Your task to perform on an android device: refresh tabs in the chrome app Image 0: 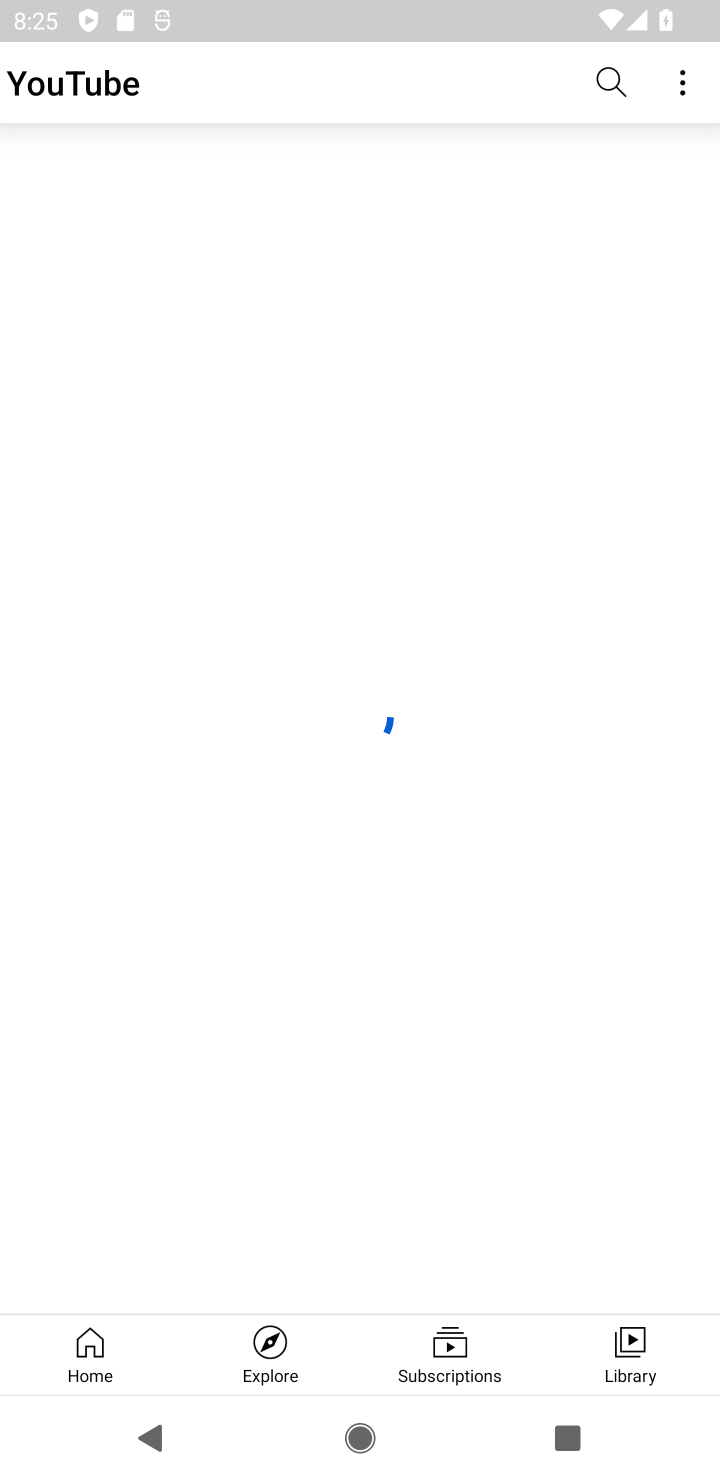
Step 0: press home button
Your task to perform on an android device: refresh tabs in the chrome app Image 1: 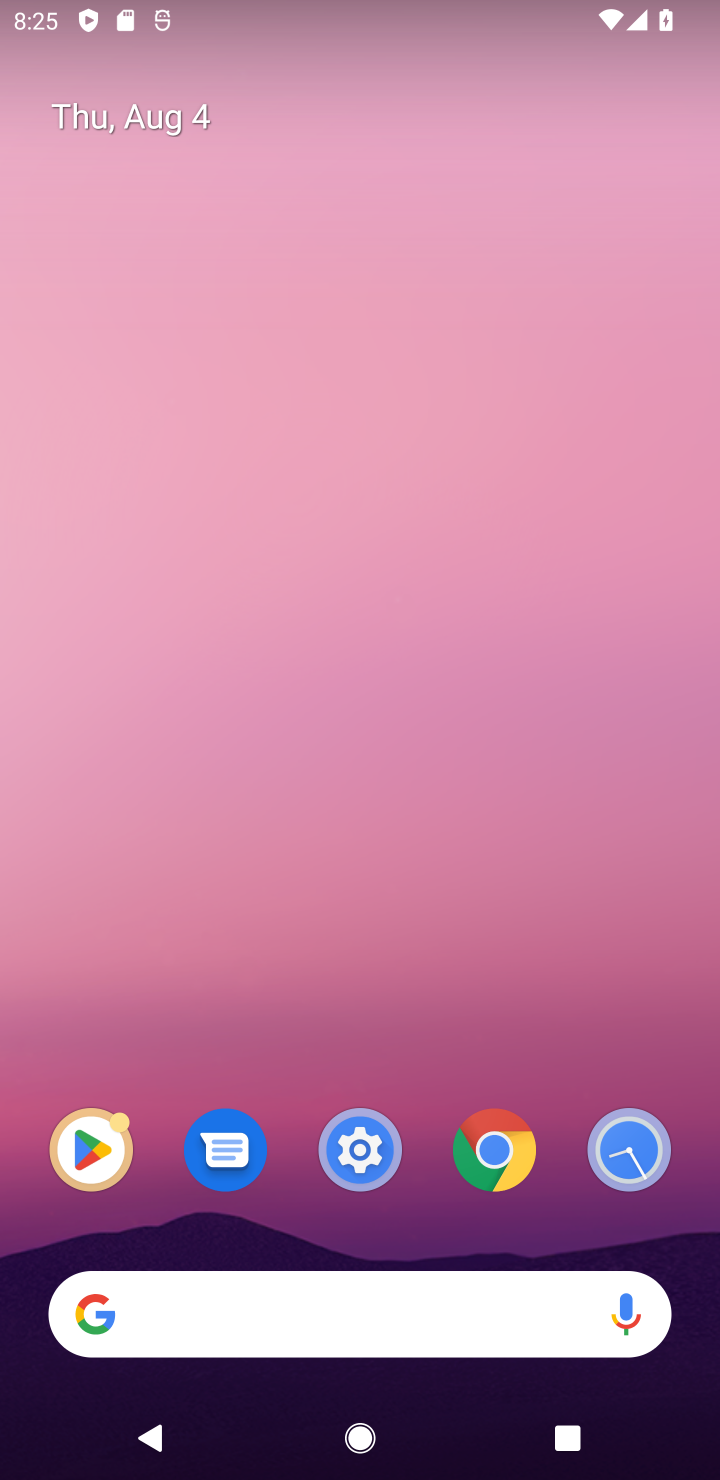
Step 1: drag from (430, 1251) to (448, 60)
Your task to perform on an android device: refresh tabs in the chrome app Image 2: 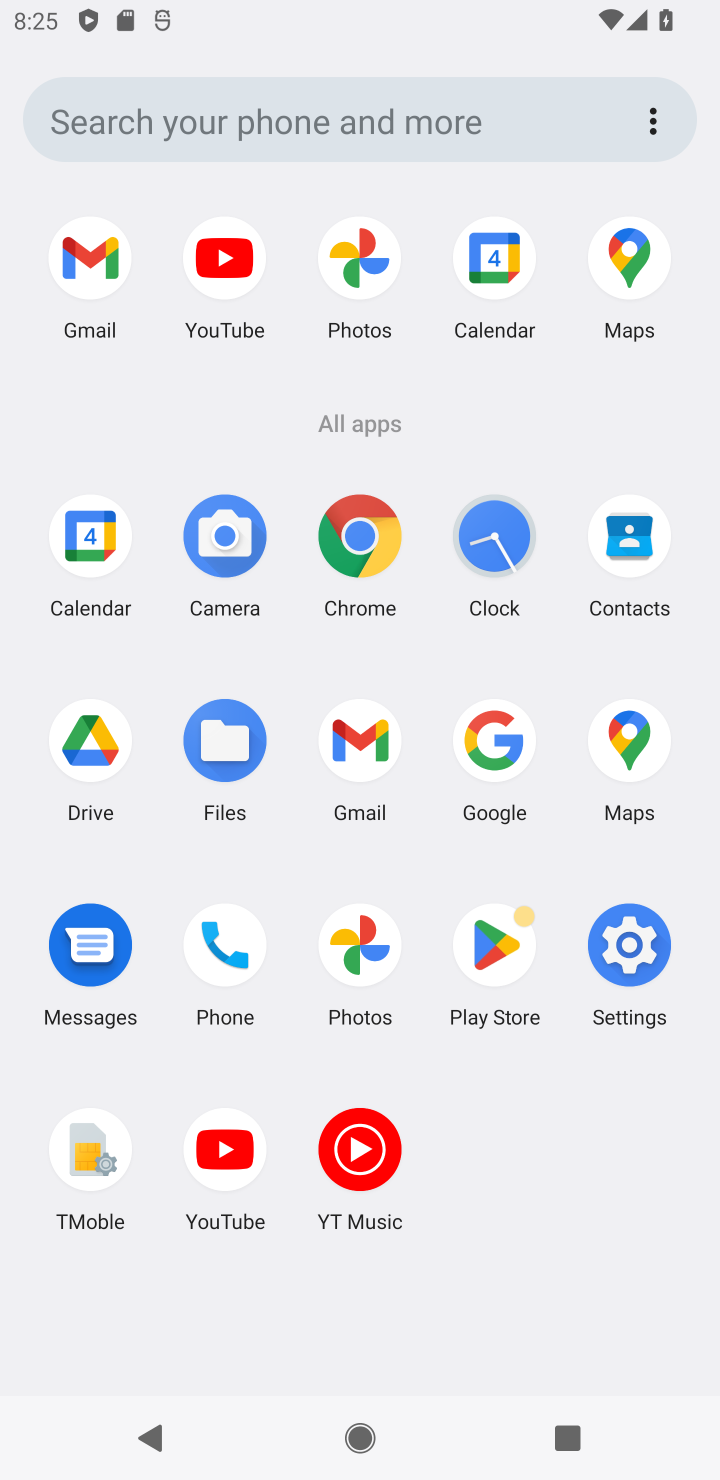
Step 2: click (334, 552)
Your task to perform on an android device: refresh tabs in the chrome app Image 3: 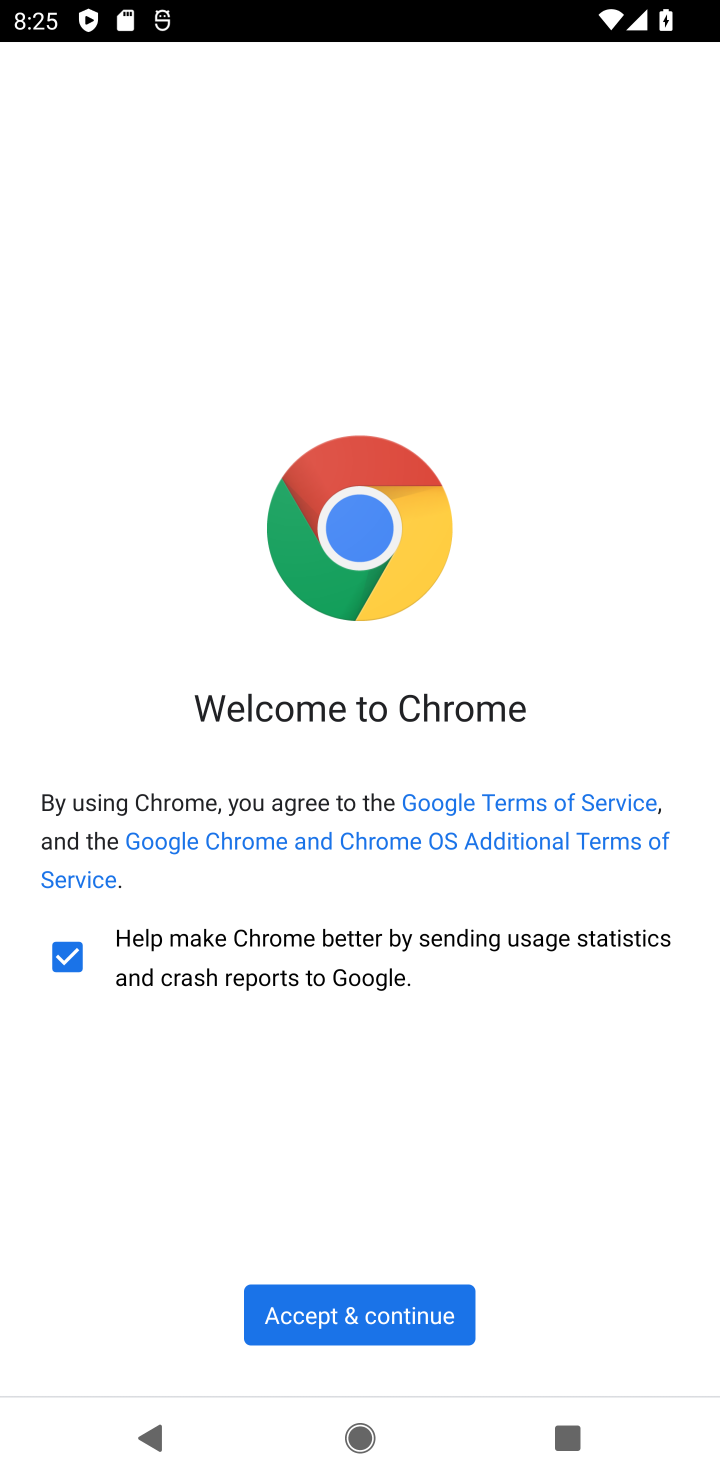
Step 3: click (399, 1297)
Your task to perform on an android device: refresh tabs in the chrome app Image 4: 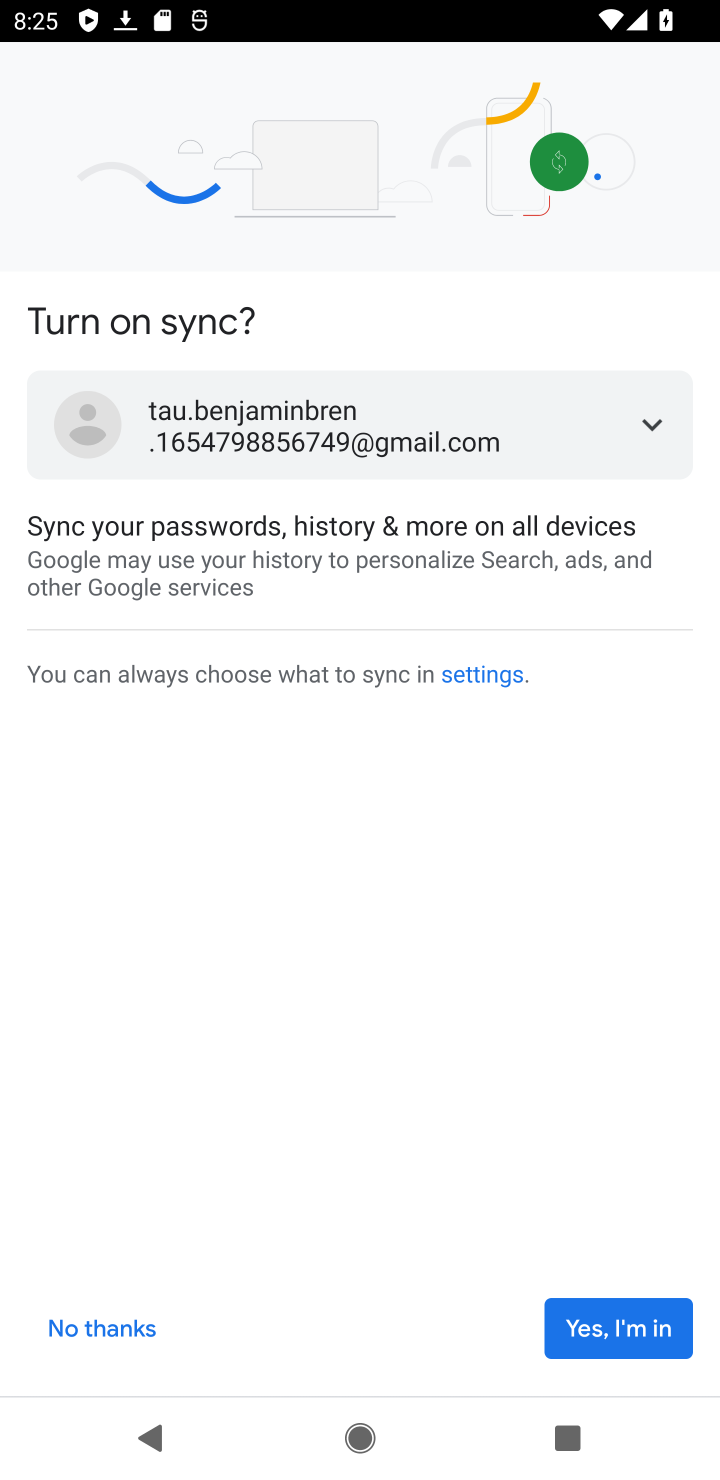
Step 4: click (604, 1339)
Your task to perform on an android device: refresh tabs in the chrome app Image 5: 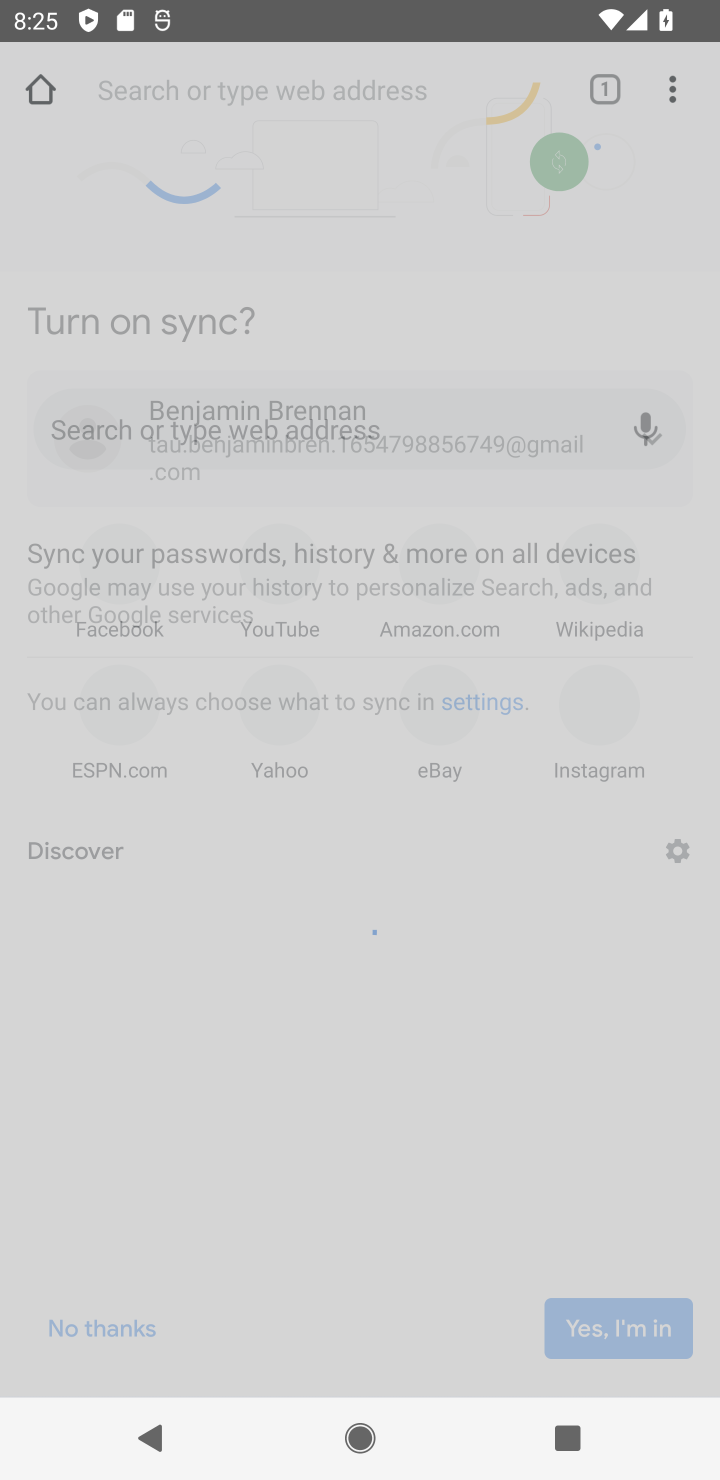
Step 5: drag from (678, 1313) to (639, 1097)
Your task to perform on an android device: refresh tabs in the chrome app Image 6: 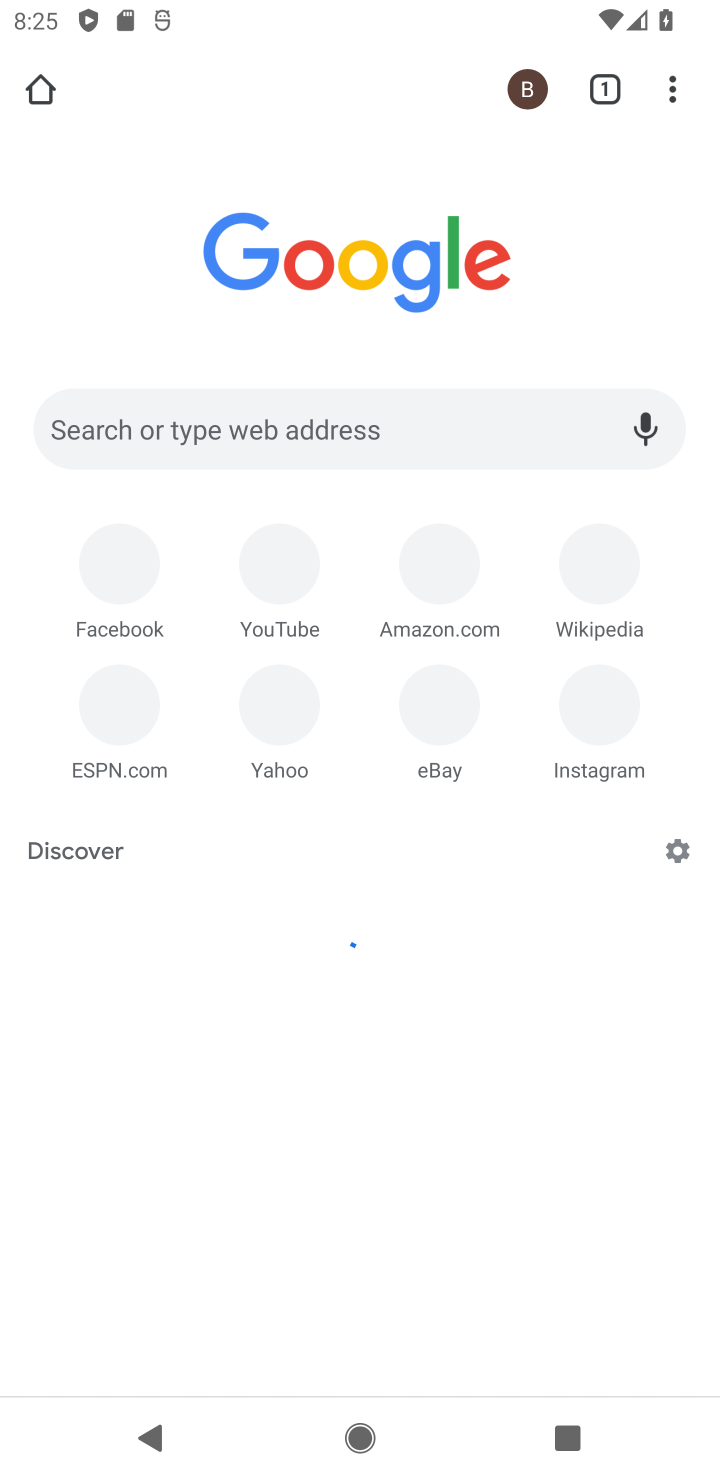
Step 6: click (679, 103)
Your task to perform on an android device: refresh tabs in the chrome app Image 7: 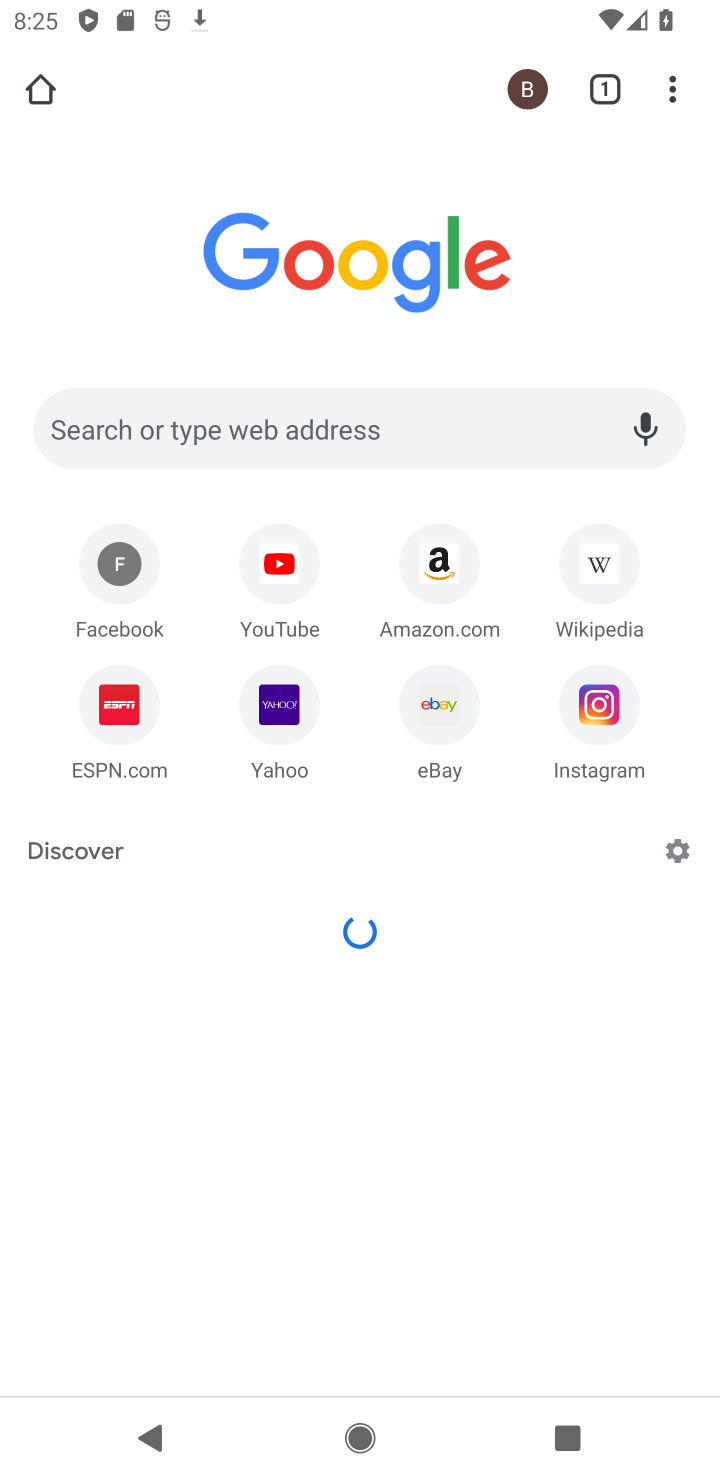
Step 7: click (670, 81)
Your task to perform on an android device: refresh tabs in the chrome app Image 8: 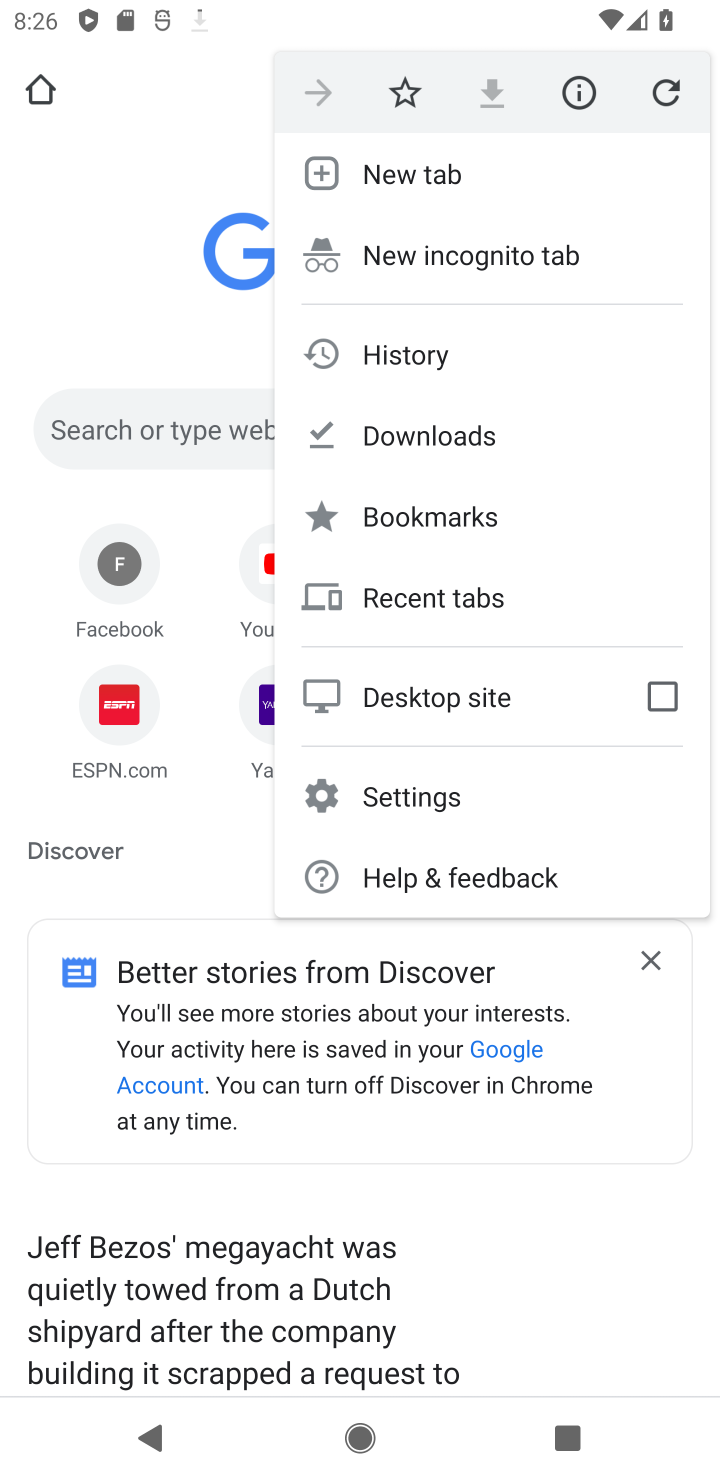
Step 8: click (654, 92)
Your task to perform on an android device: refresh tabs in the chrome app Image 9: 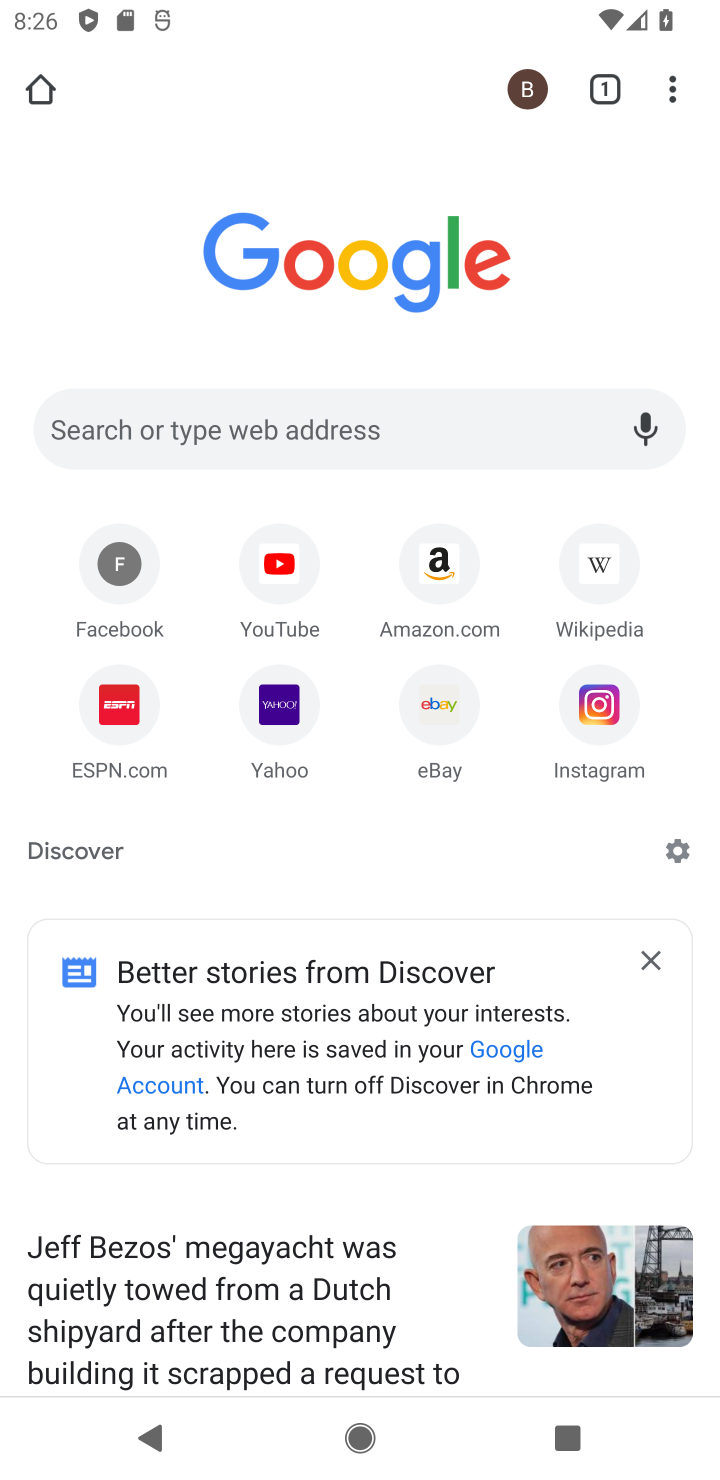
Step 9: task complete